Your task to perform on an android device: See recent photos Image 0: 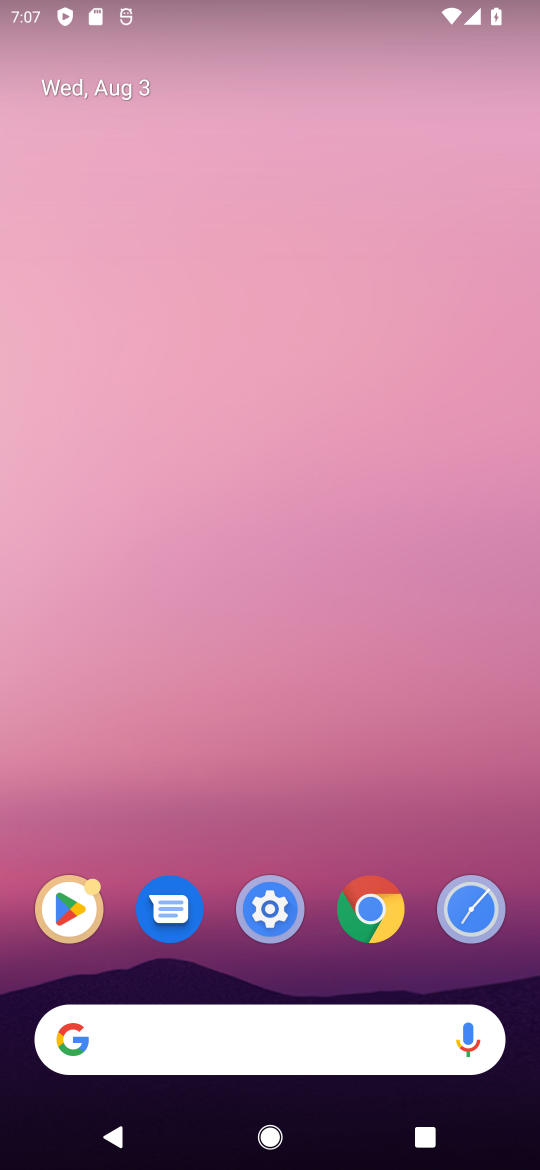
Step 0: drag from (336, 739) to (382, 89)
Your task to perform on an android device: See recent photos Image 1: 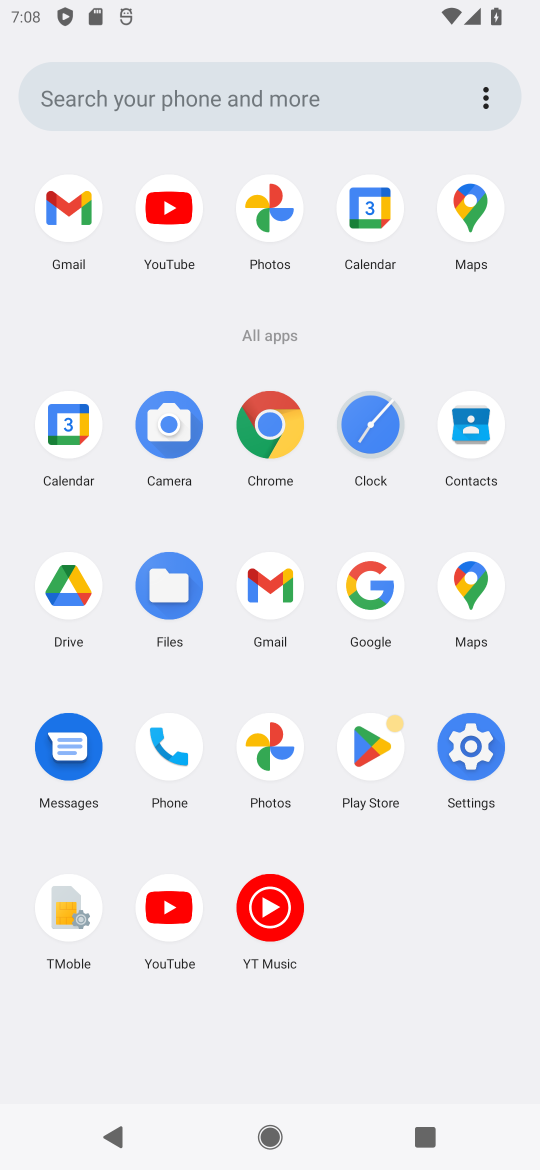
Step 1: click (275, 745)
Your task to perform on an android device: See recent photos Image 2: 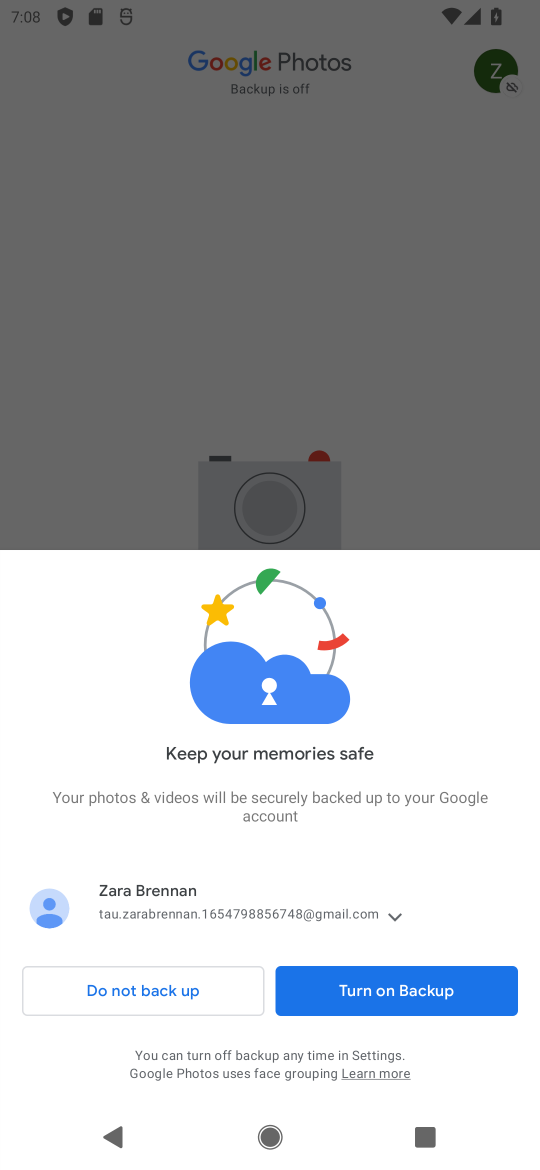
Step 2: click (203, 975)
Your task to perform on an android device: See recent photos Image 3: 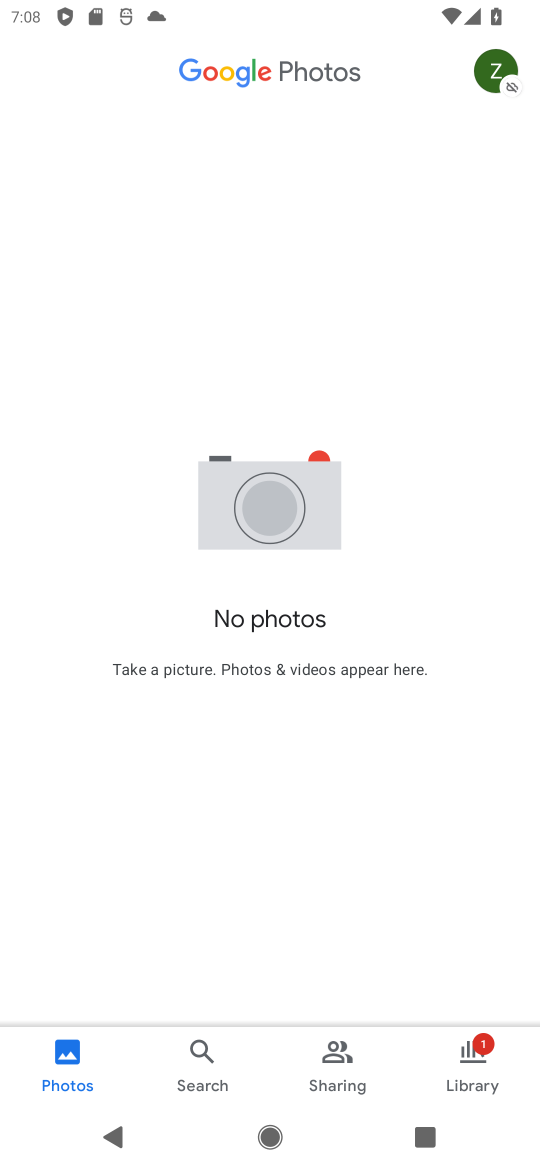
Step 3: task complete